Your task to perform on an android device: change notifications settings Image 0: 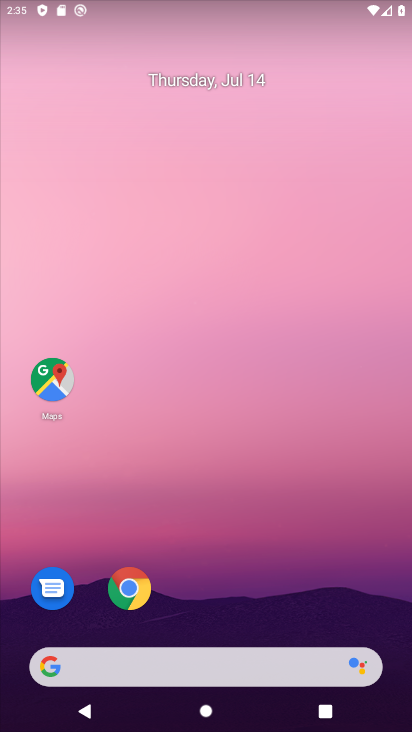
Step 0: drag from (245, 622) to (216, 5)
Your task to perform on an android device: change notifications settings Image 1: 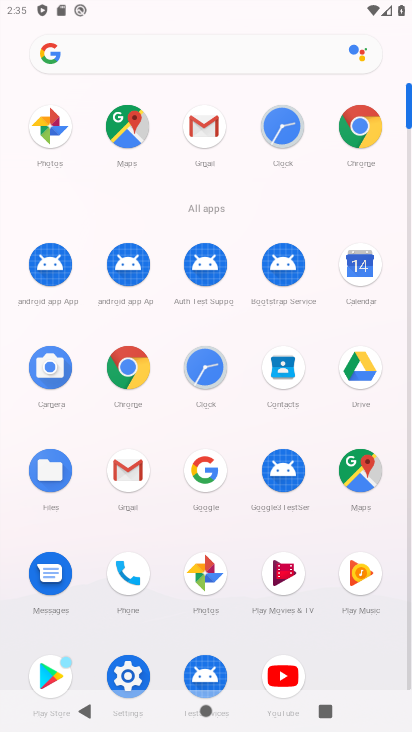
Step 1: click (128, 673)
Your task to perform on an android device: change notifications settings Image 2: 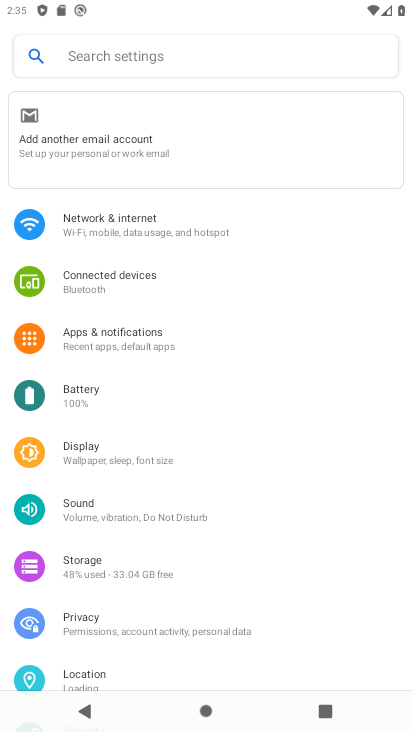
Step 2: click (161, 329)
Your task to perform on an android device: change notifications settings Image 3: 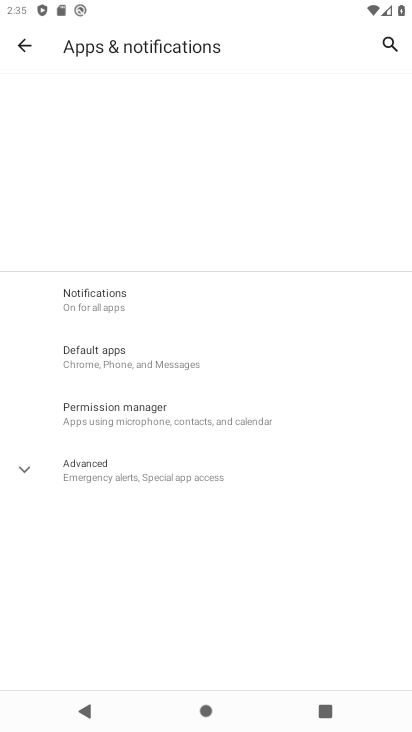
Step 3: click (116, 304)
Your task to perform on an android device: change notifications settings Image 4: 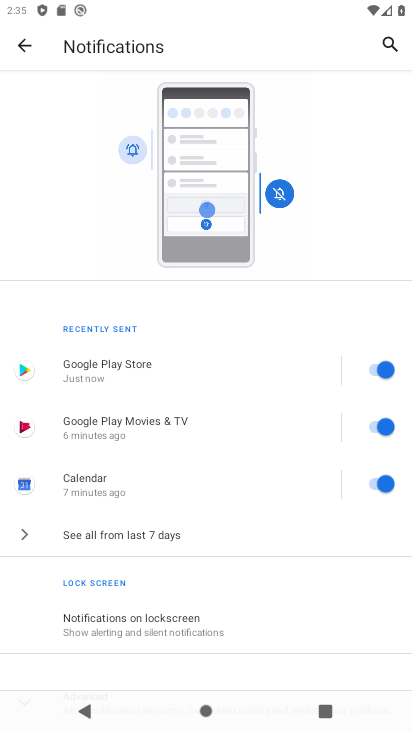
Step 4: click (121, 524)
Your task to perform on an android device: change notifications settings Image 5: 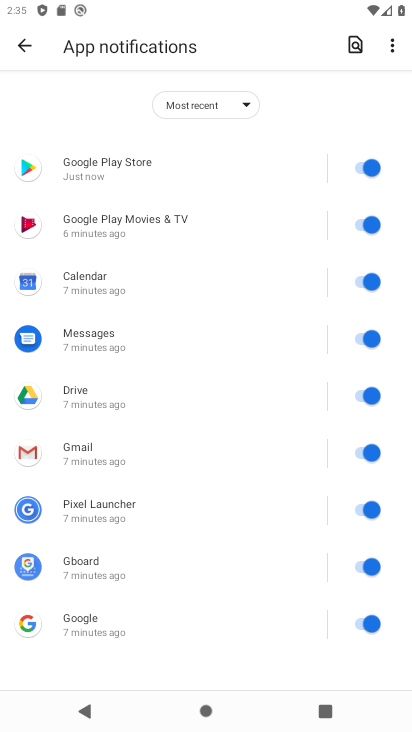
Step 5: click (172, 109)
Your task to perform on an android device: change notifications settings Image 6: 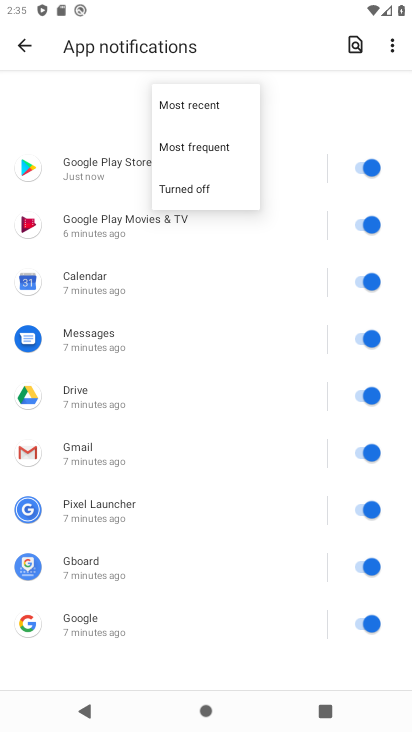
Step 6: click (193, 186)
Your task to perform on an android device: change notifications settings Image 7: 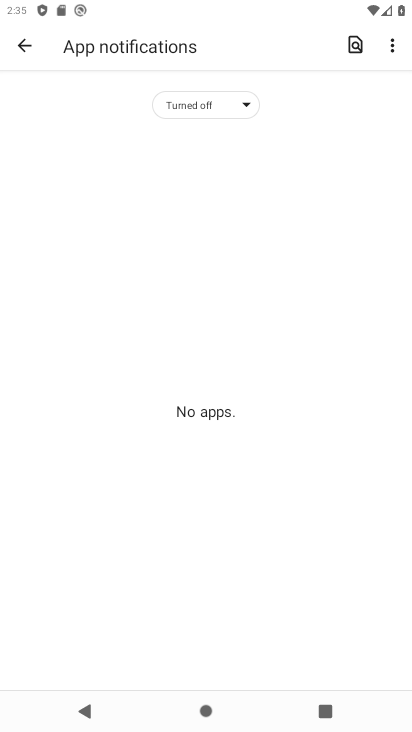
Step 7: task complete